Your task to perform on an android device: open device folders in google photos Image 0: 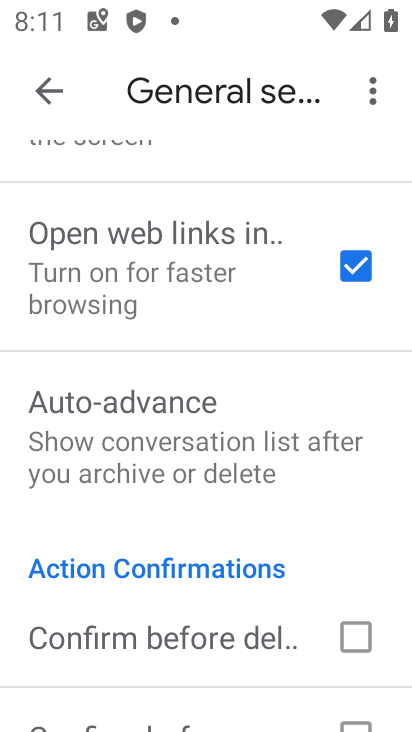
Step 0: press home button
Your task to perform on an android device: open device folders in google photos Image 1: 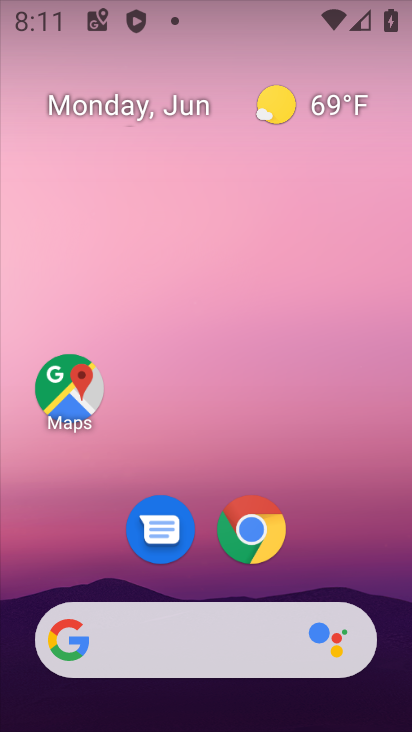
Step 1: drag from (353, 550) to (411, 134)
Your task to perform on an android device: open device folders in google photos Image 2: 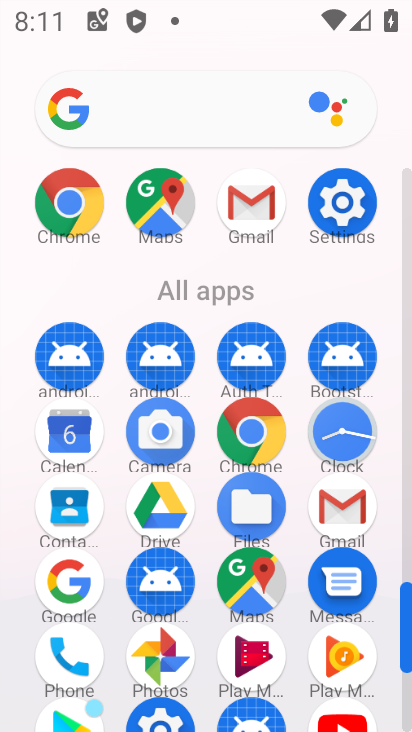
Step 2: click (402, 695)
Your task to perform on an android device: open device folders in google photos Image 3: 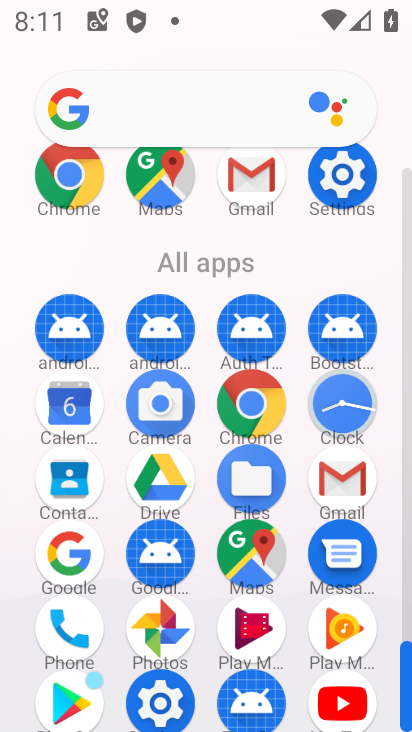
Step 3: click (156, 641)
Your task to perform on an android device: open device folders in google photos Image 4: 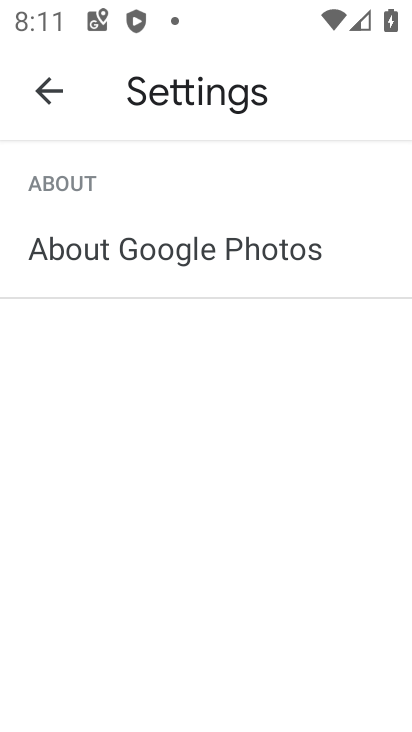
Step 4: click (33, 89)
Your task to perform on an android device: open device folders in google photos Image 5: 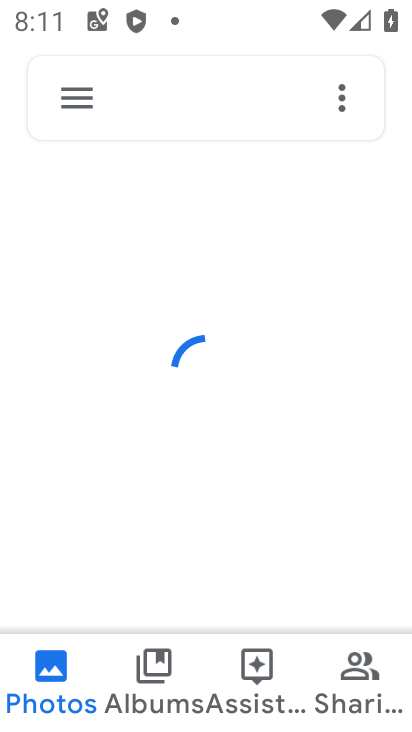
Step 5: click (86, 99)
Your task to perform on an android device: open device folders in google photos Image 6: 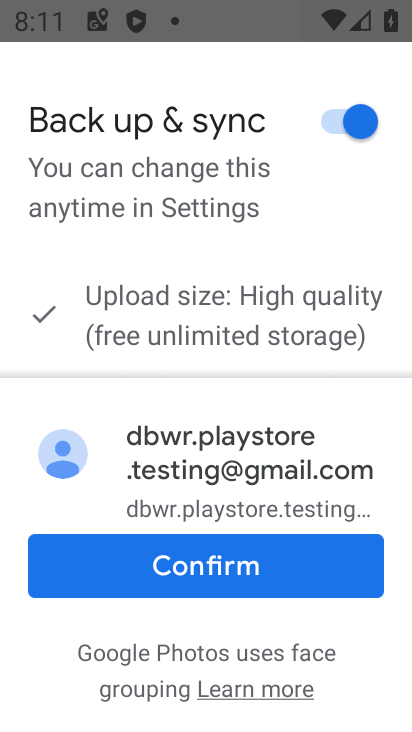
Step 6: click (173, 552)
Your task to perform on an android device: open device folders in google photos Image 7: 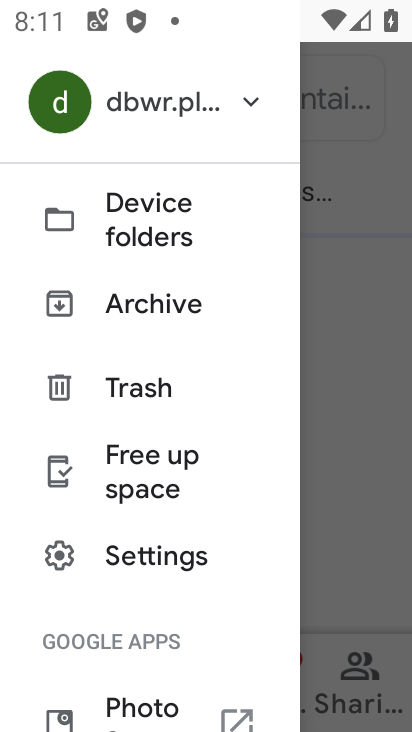
Step 7: click (139, 215)
Your task to perform on an android device: open device folders in google photos Image 8: 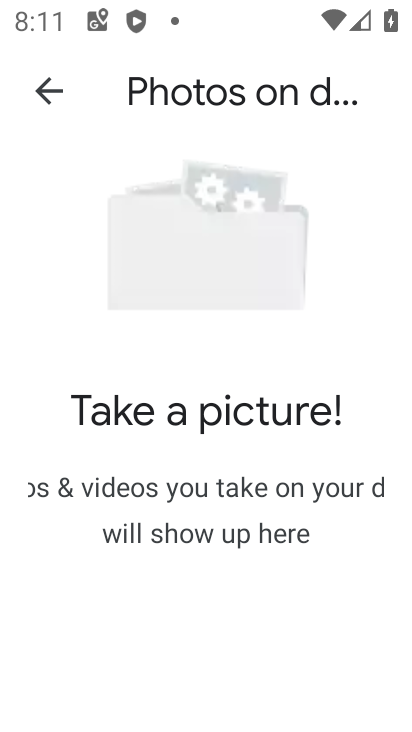
Step 8: task complete